Your task to perform on an android device: Open notification settings Image 0: 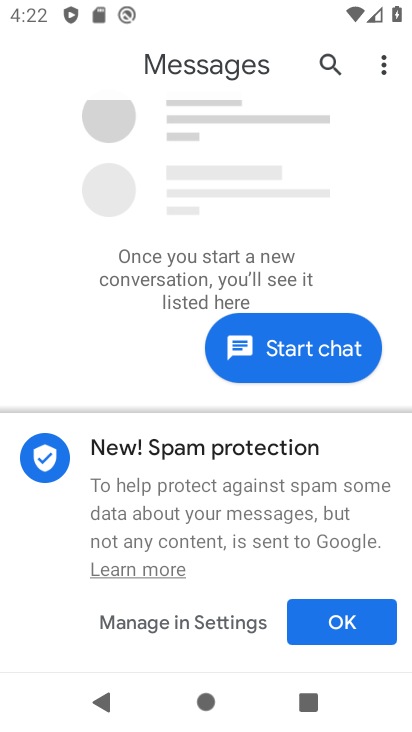
Step 0: press back button
Your task to perform on an android device: Open notification settings Image 1: 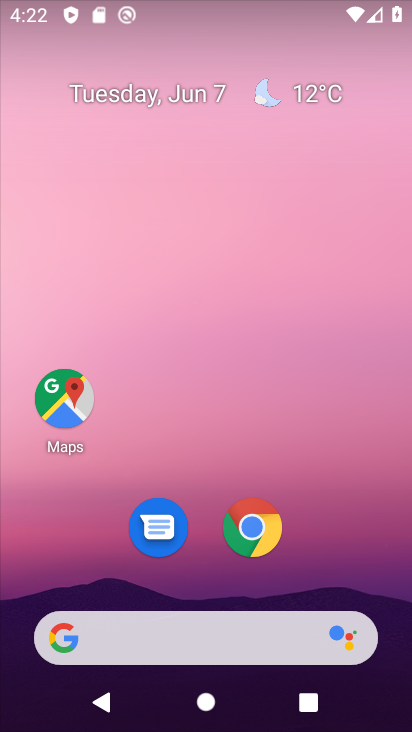
Step 1: drag from (316, 572) to (227, 145)
Your task to perform on an android device: Open notification settings Image 2: 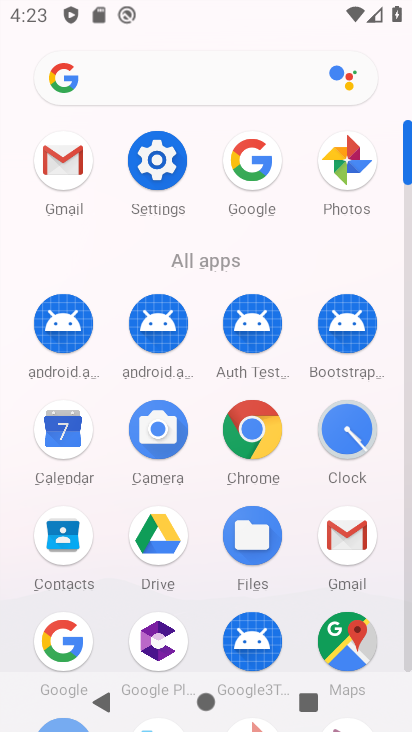
Step 2: click (155, 163)
Your task to perform on an android device: Open notification settings Image 3: 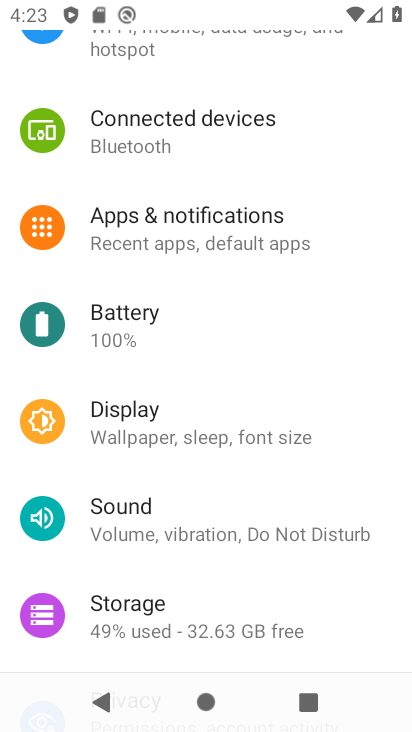
Step 3: drag from (200, 327) to (188, 450)
Your task to perform on an android device: Open notification settings Image 4: 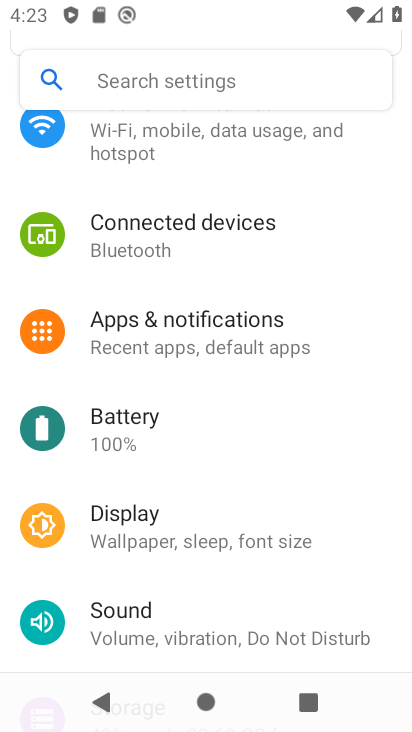
Step 4: click (194, 351)
Your task to perform on an android device: Open notification settings Image 5: 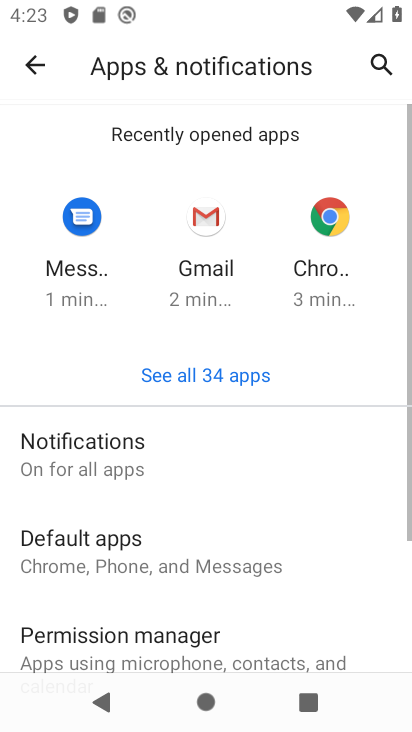
Step 5: click (108, 433)
Your task to perform on an android device: Open notification settings Image 6: 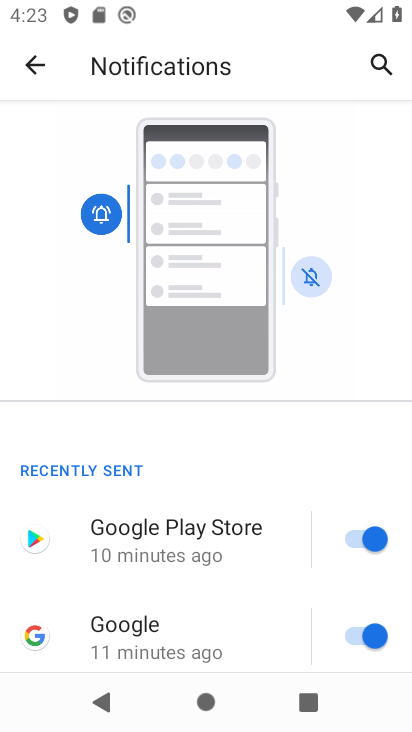
Step 6: task complete